Your task to perform on an android device: Open Google Chrome and open the bookmarks view Image 0: 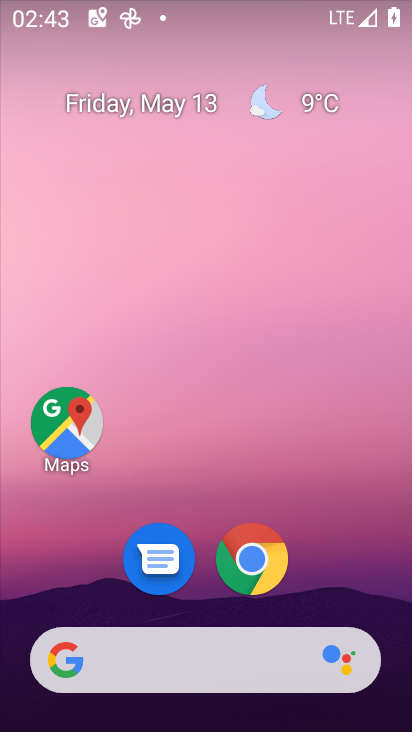
Step 0: click (254, 569)
Your task to perform on an android device: Open Google Chrome and open the bookmarks view Image 1: 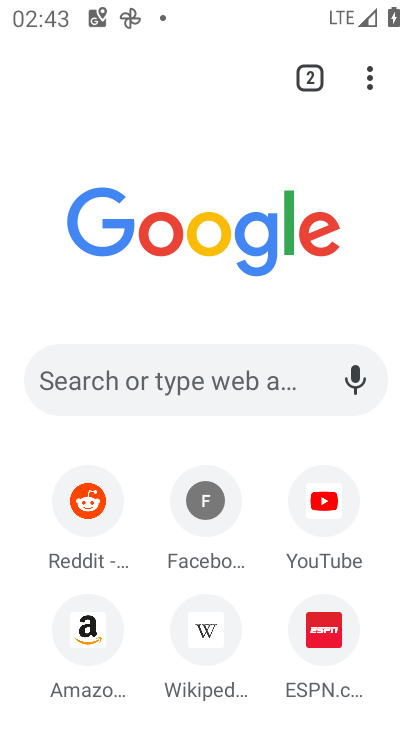
Step 1: click (369, 74)
Your task to perform on an android device: Open Google Chrome and open the bookmarks view Image 2: 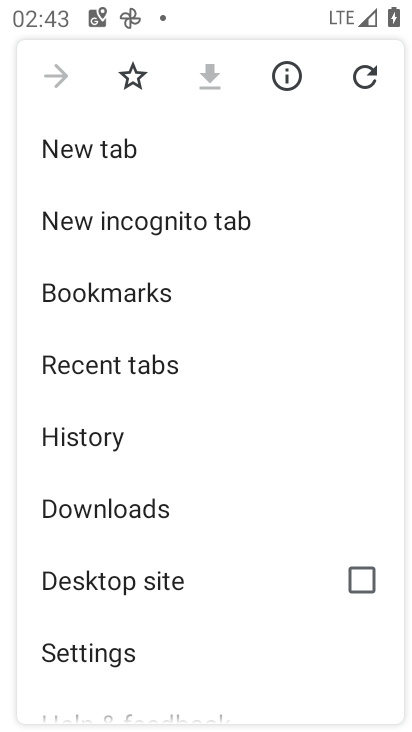
Step 2: click (72, 296)
Your task to perform on an android device: Open Google Chrome and open the bookmarks view Image 3: 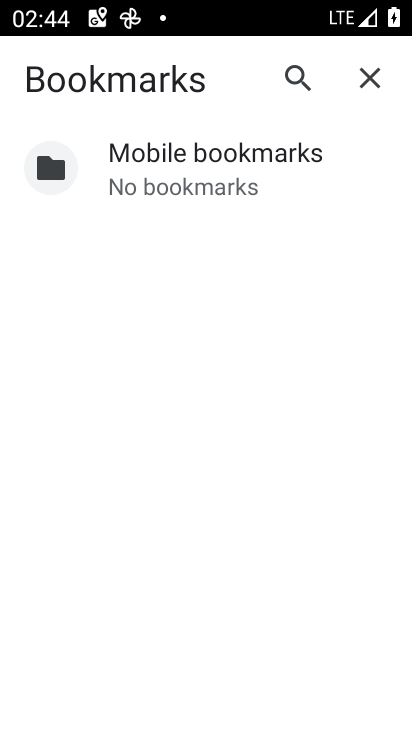
Step 3: task complete